Your task to perform on an android device: Go to Android settings Image 0: 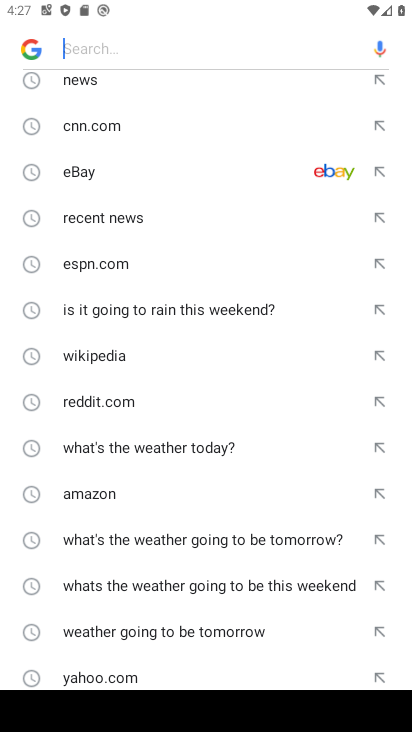
Step 0: press home button
Your task to perform on an android device: Go to Android settings Image 1: 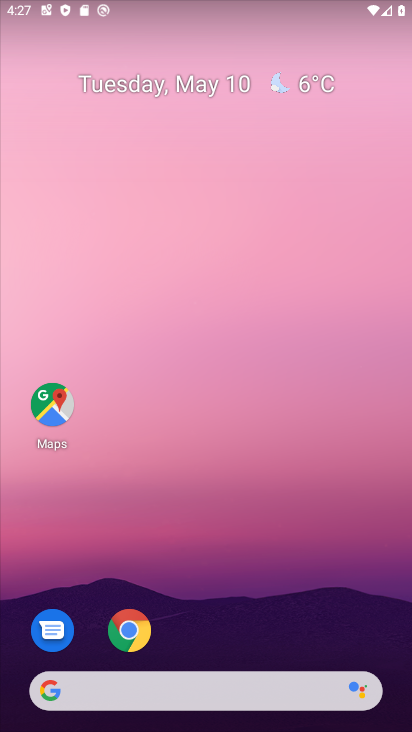
Step 1: drag from (242, 586) to (264, 170)
Your task to perform on an android device: Go to Android settings Image 2: 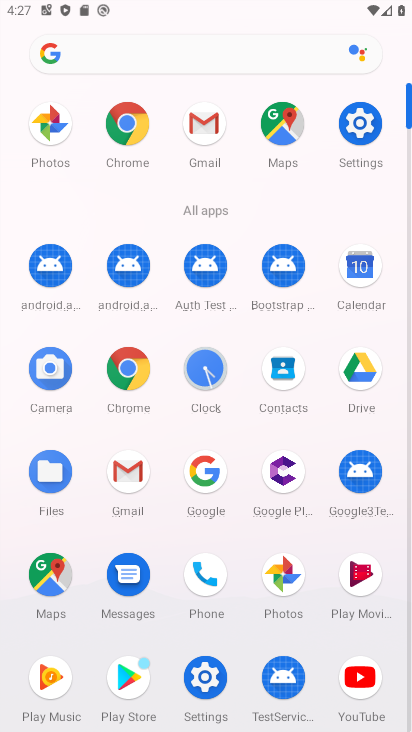
Step 2: click (202, 672)
Your task to perform on an android device: Go to Android settings Image 3: 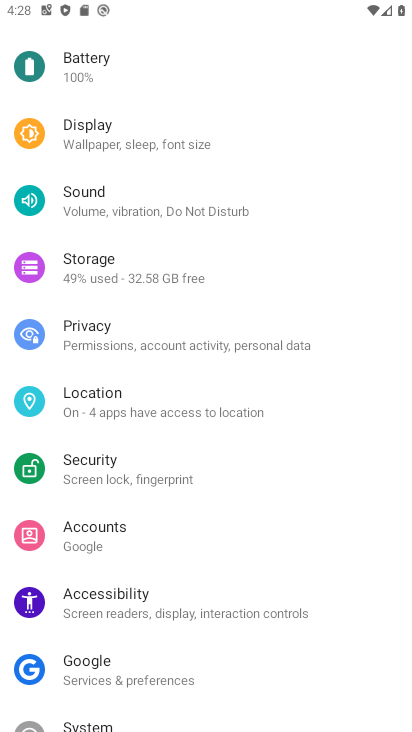
Step 3: task complete